Your task to perform on an android device: check data usage Image 0: 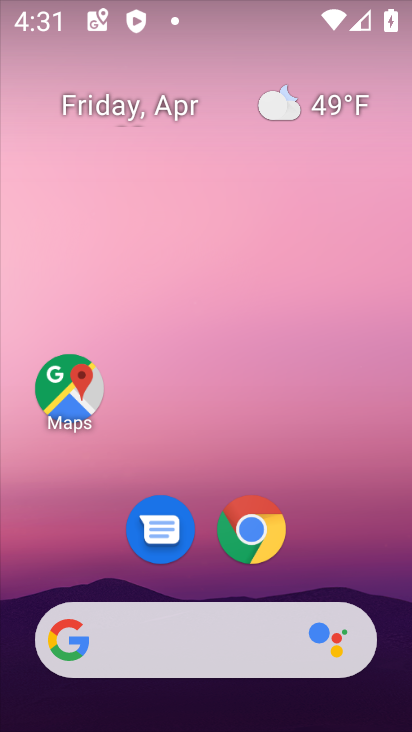
Step 0: drag from (221, 722) to (224, 152)
Your task to perform on an android device: check data usage Image 1: 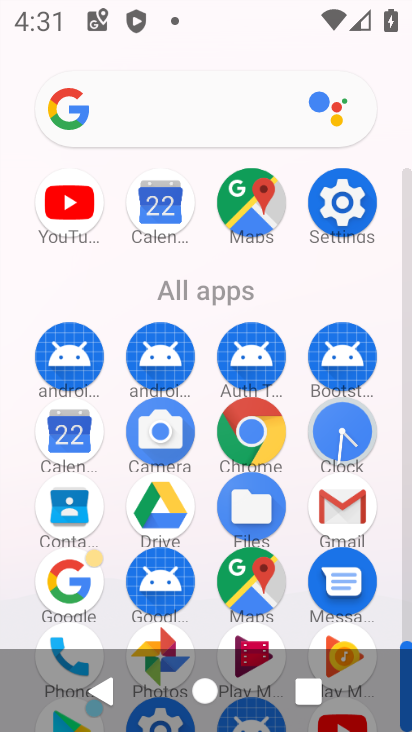
Step 1: click (341, 200)
Your task to perform on an android device: check data usage Image 2: 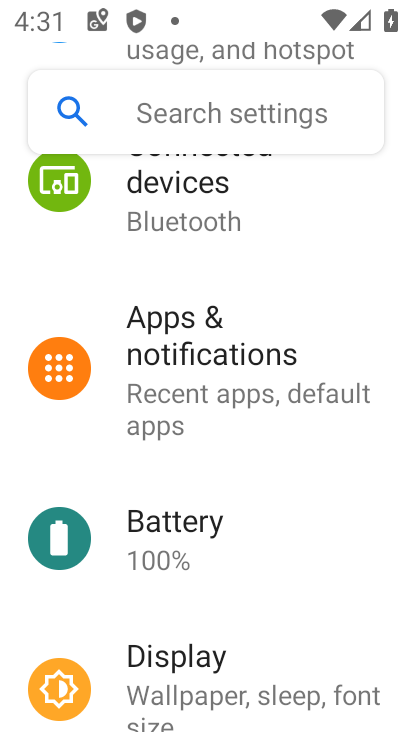
Step 2: drag from (199, 228) to (209, 514)
Your task to perform on an android device: check data usage Image 3: 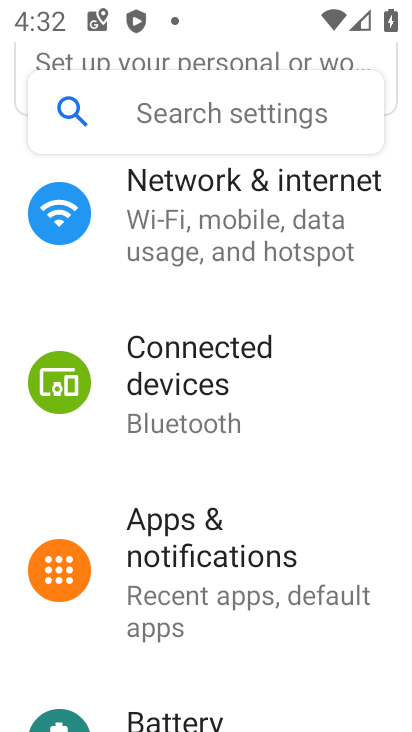
Step 3: click (217, 230)
Your task to perform on an android device: check data usage Image 4: 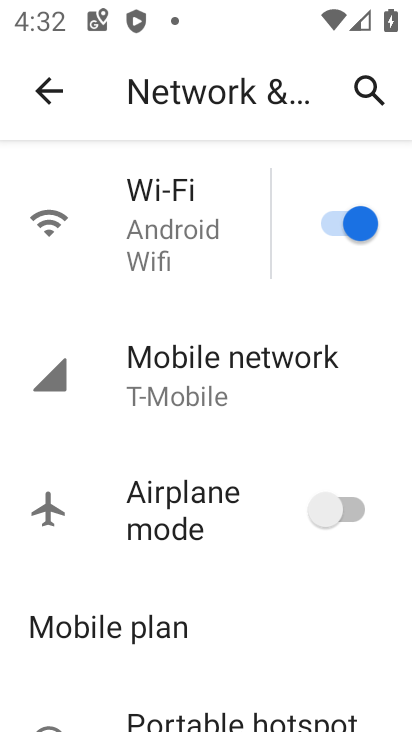
Step 4: click (187, 375)
Your task to perform on an android device: check data usage Image 5: 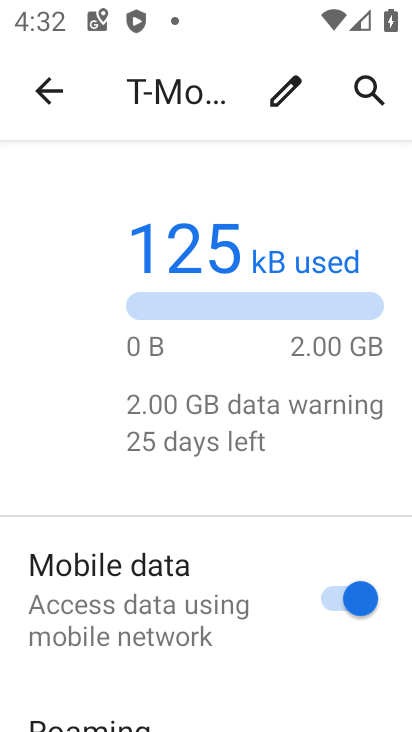
Step 5: drag from (196, 671) to (186, 448)
Your task to perform on an android device: check data usage Image 6: 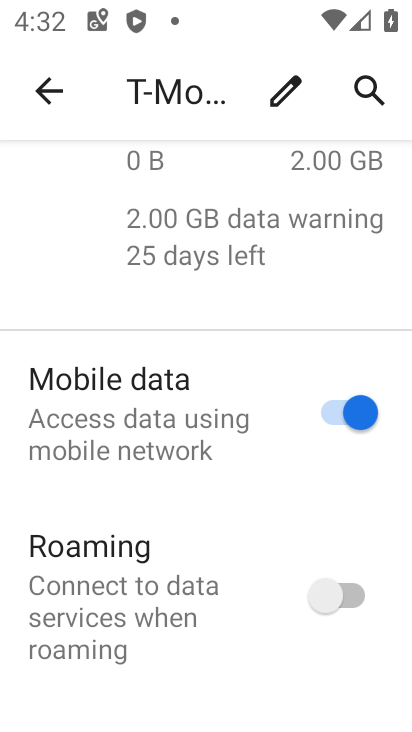
Step 6: drag from (212, 672) to (211, 268)
Your task to perform on an android device: check data usage Image 7: 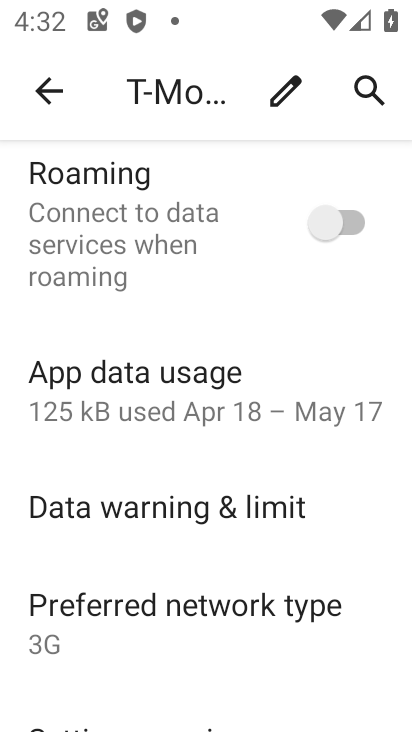
Step 7: click (156, 405)
Your task to perform on an android device: check data usage Image 8: 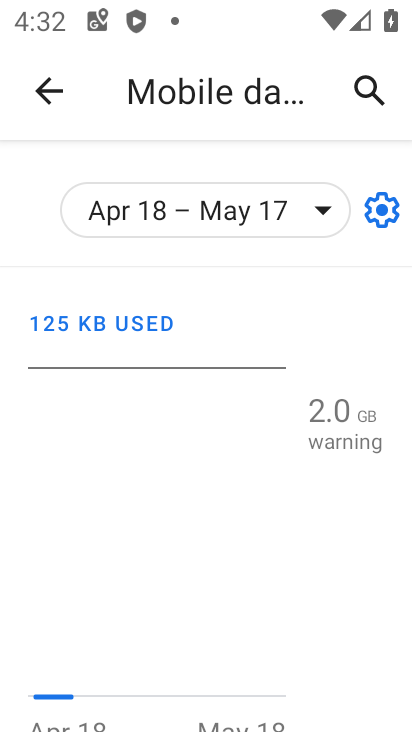
Step 8: task complete